Your task to perform on an android device: Go to Yahoo.com Image 0: 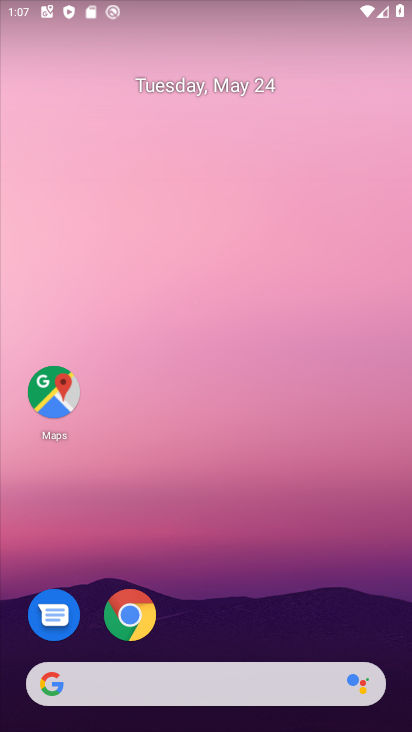
Step 0: click (126, 608)
Your task to perform on an android device: Go to Yahoo.com Image 1: 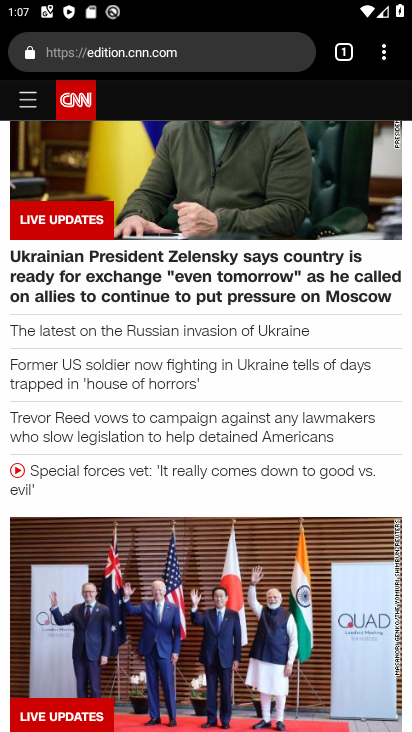
Step 1: click (335, 47)
Your task to perform on an android device: Go to Yahoo.com Image 2: 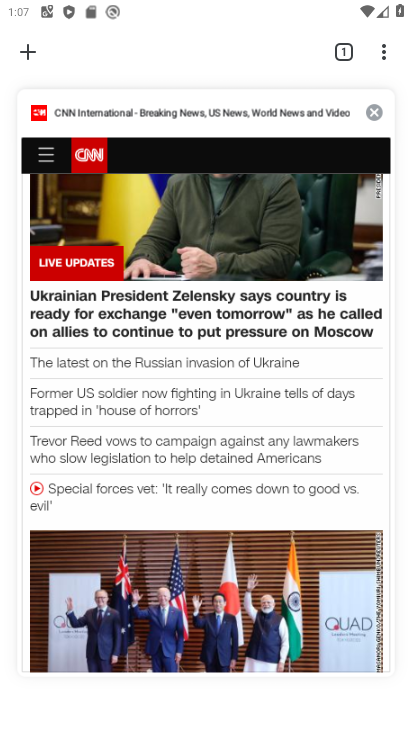
Step 2: click (15, 49)
Your task to perform on an android device: Go to Yahoo.com Image 3: 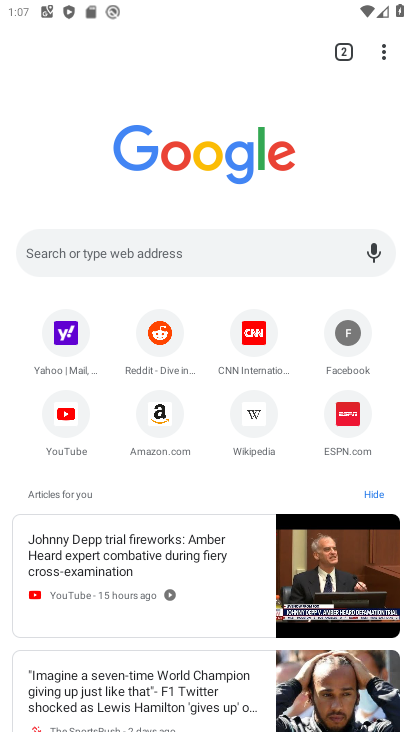
Step 3: click (59, 330)
Your task to perform on an android device: Go to Yahoo.com Image 4: 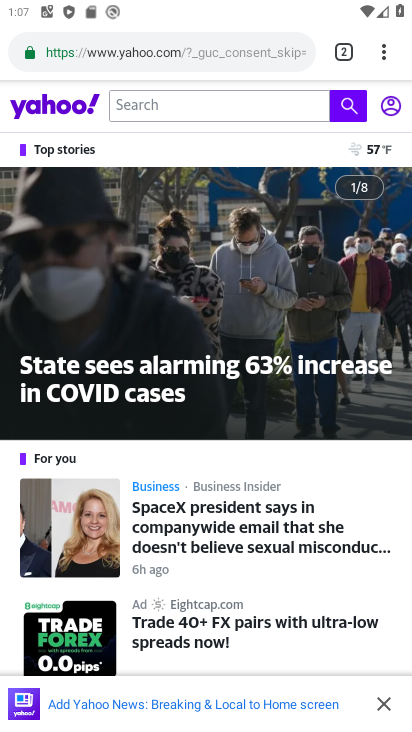
Step 4: task complete